Your task to perform on an android device: turn notification dots off Image 0: 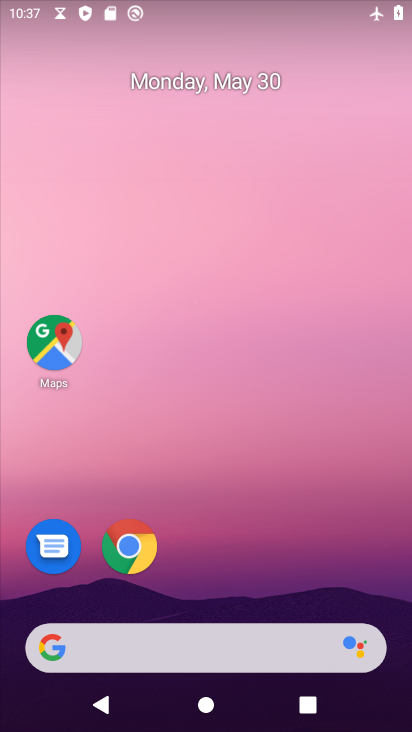
Step 0: press home button
Your task to perform on an android device: turn notification dots off Image 1: 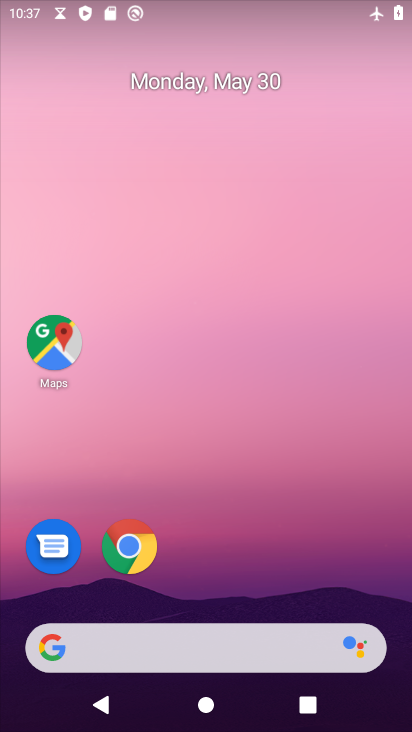
Step 1: drag from (219, 606) to (262, 1)
Your task to perform on an android device: turn notification dots off Image 2: 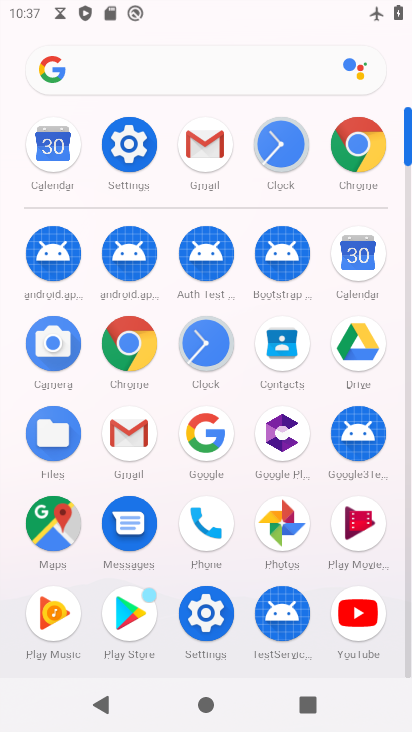
Step 2: click (127, 135)
Your task to perform on an android device: turn notification dots off Image 3: 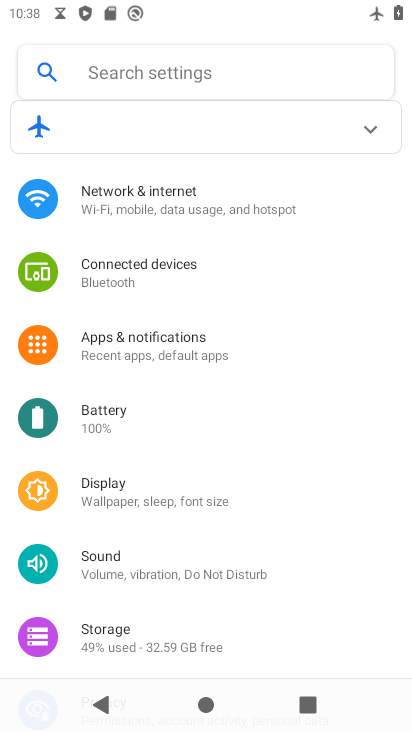
Step 3: click (219, 339)
Your task to perform on an android device: turn notification dots off Image 4: 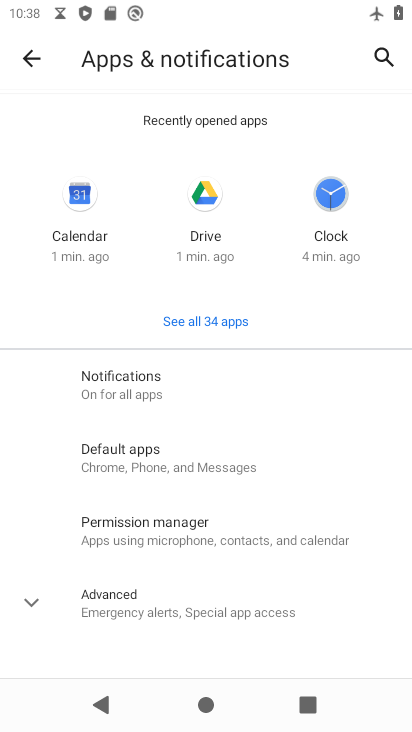
Step 4: click (166, 391)
Your task to perform on an android device: turn notification dots off Image 5: 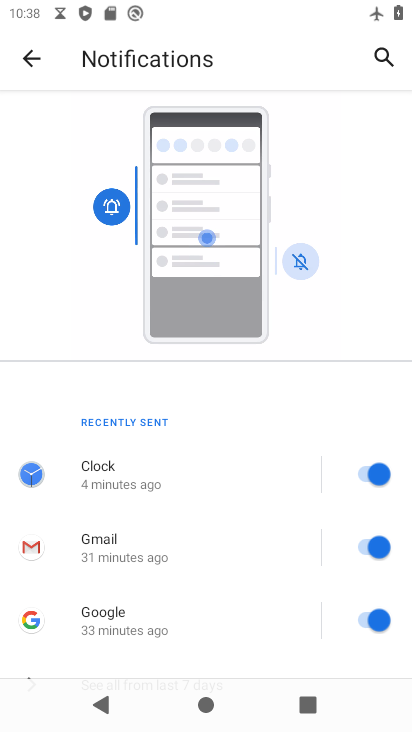
Step 5: drag from (225, 595) to (251, 174)
Your task to perform on an android device: turn notification dots off Image 6: 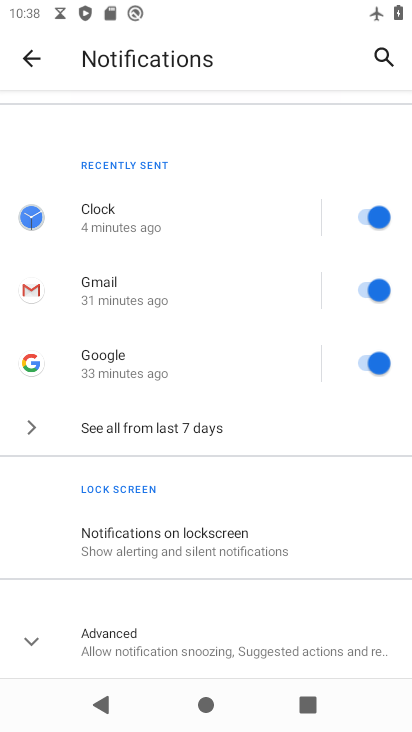
Step 6: click (86, 635)
Your task to perform on an android device: turn notification dots off Image 7: 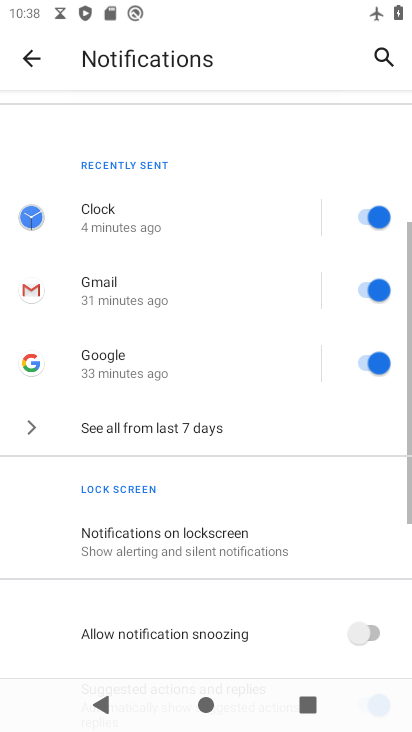
Step 7: drag from (163, 632) to (191, 196)
Your task to perform on an android device: turn notification dots off Image 8: 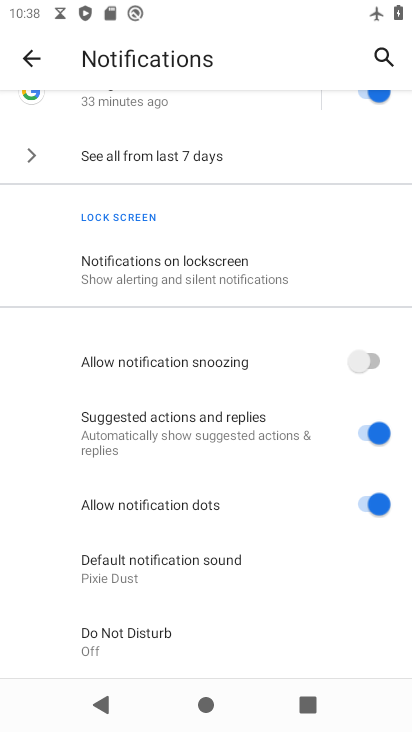
Step 8: click (360, 496)
Your task to perform on an android device: turn notification dots off Image 9: 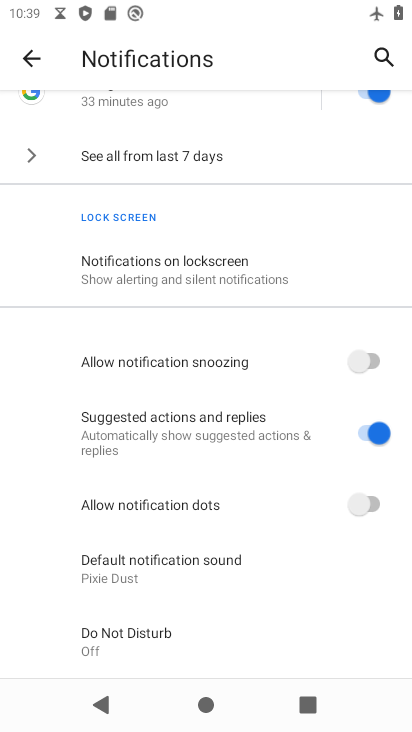
Step 9: task complete